Your task to perform on an android device: Open Chrome and go to settings Image 0: 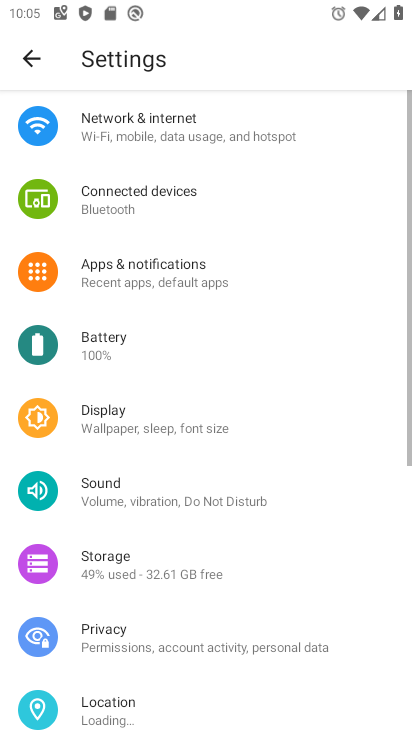
Step 0: press home button
Your task to perform on an android device: Open Chrome and go to settings Image 1: 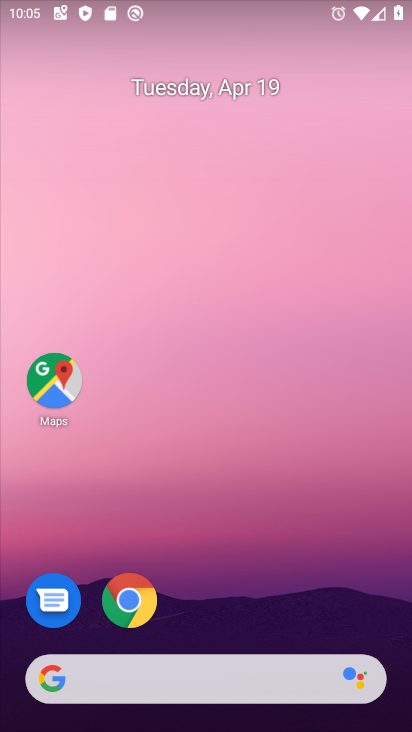
Step 1: drag from (317, 576) to (219, 36)
Your task to perform on an android device: Open Chrome and go to settings Image 2: 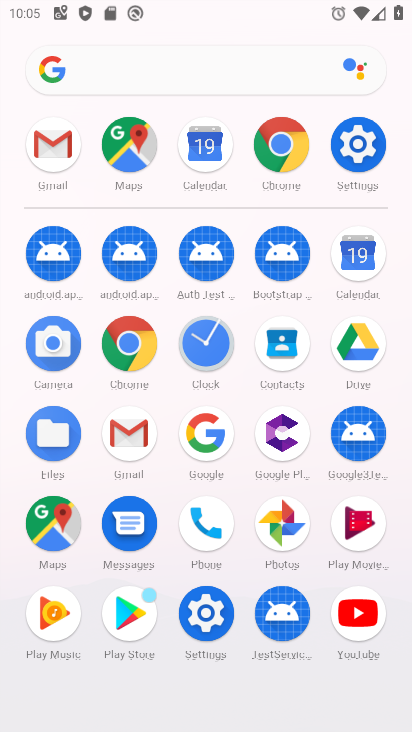
Step 2: click (292, 157)
Your task to perform on an android device: Open Chrome and go to settings Image 3: 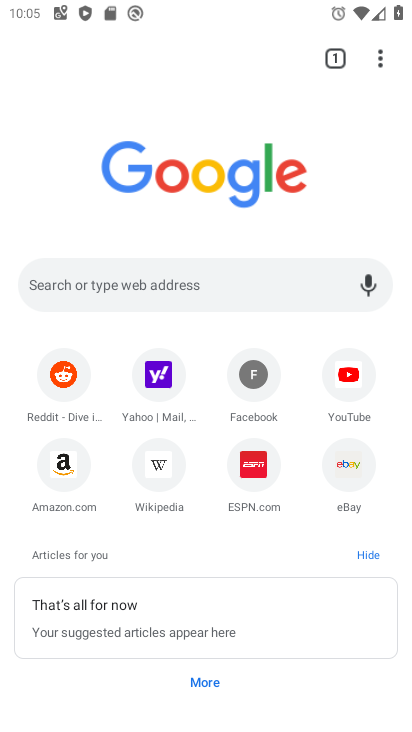
Step 3: click (380, 52)
Your task to perform on an android device: Open Chrome and go to settings Image 4: 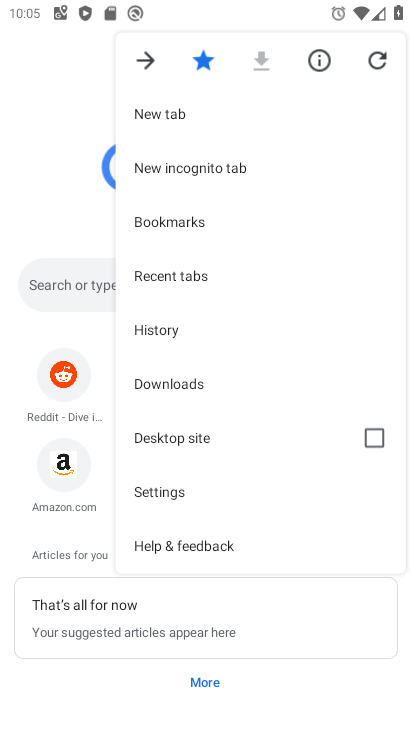
Step 4: click (205, 490)
Your task to perform on an android device: Open Chrome and go to settings Image 5: 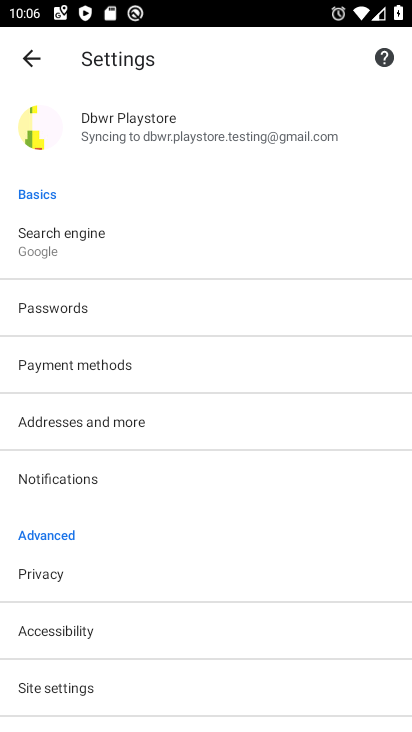
Step 5: task complete